Your task to perform on an android device: Open calendar and show me the second week of next month Image 0: 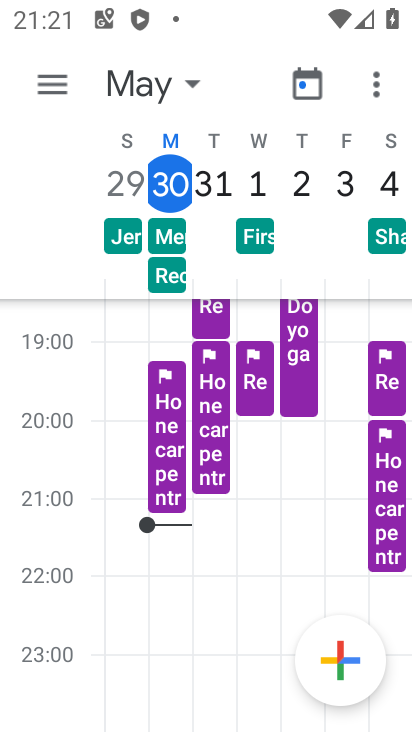
Step 0: press home button
Your task to perform on an android device: Open calendar and show me the second week of next month Image 1: 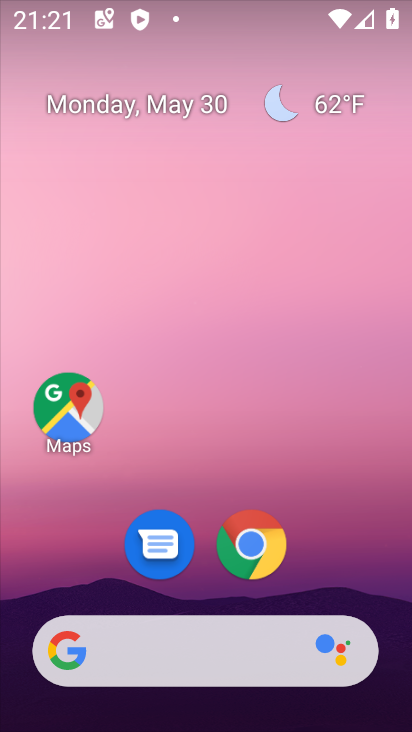
Step 1: drag from (320, 536) to (263, 293)
Your task to perform on an android device: Open calendar and show me the second week of next month Image 2: 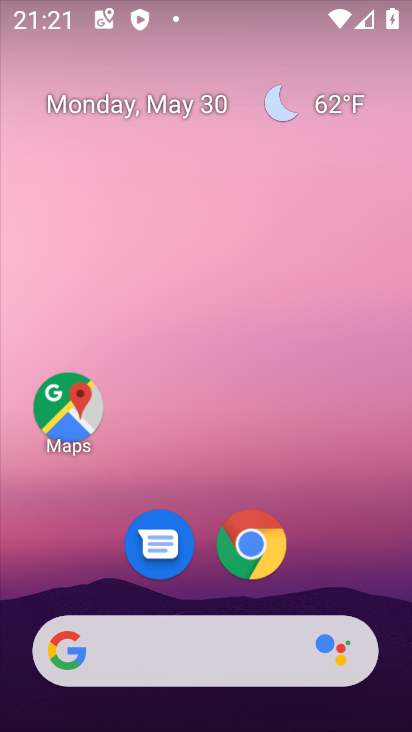
Step 2: drag from (328, 563) to (253, 155)
Your task to perform on an android device: Open calendar and show me the second week of next month Image 3: 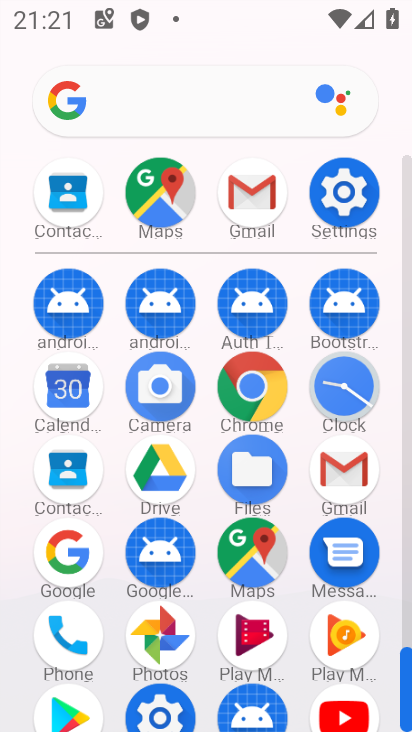
Step 3: click (74, 387)
Your task to perform on an android device: Open calendar and show me the second week of next month Image 4: 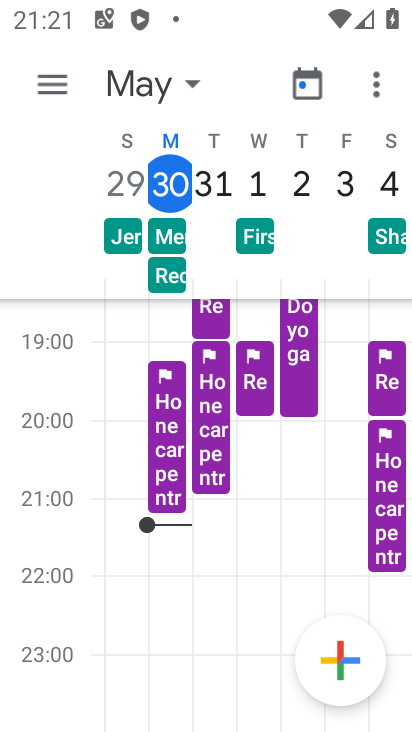
Step 4: click (311, 89)
Your task to perform on an android device: Open calendar and show me the second week of next month Image 5: 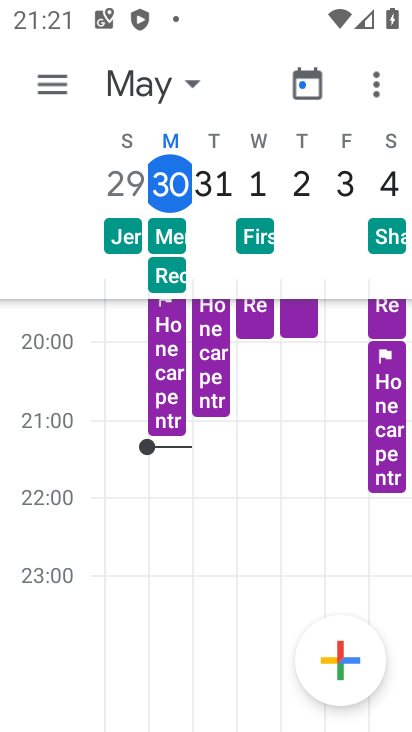
Step 5: click (195, 84)
Your task to perform on an android device: Open calendar and show me the second week of next month Image 6: 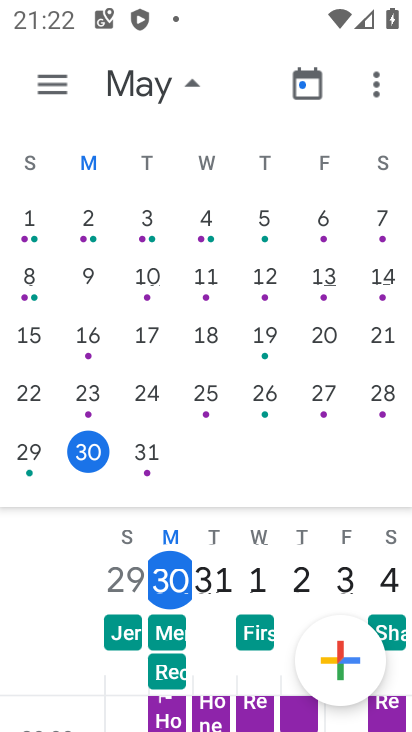
Step 6: drag from (366, 359) to (64, 387)
Your task to perform on an android device: Open calendar and show me the second week of next month Image 7: 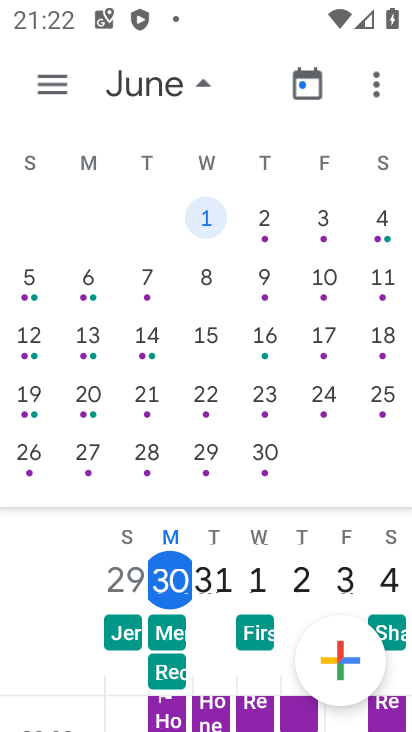
Step 7: click (83, 332)
Your task to perform on an android device: Open calendar and show me the second week of next month Image 8: 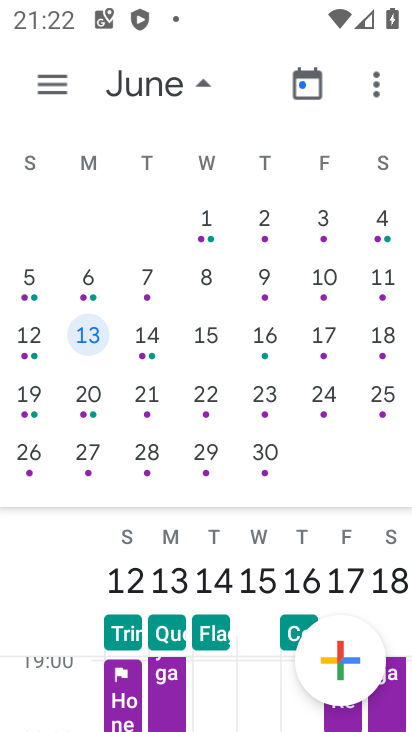
Step 8: click (52, 85)
Your task to perform on an android device: Open calendar and show me the second week of next month Image 9: 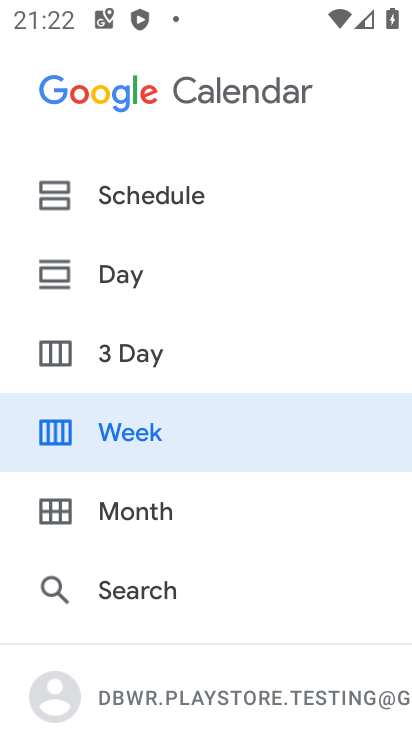
Step 9: click (89, 445)
Your task to perform on an android device: Open calendar and show me the second week of next month Image 10: 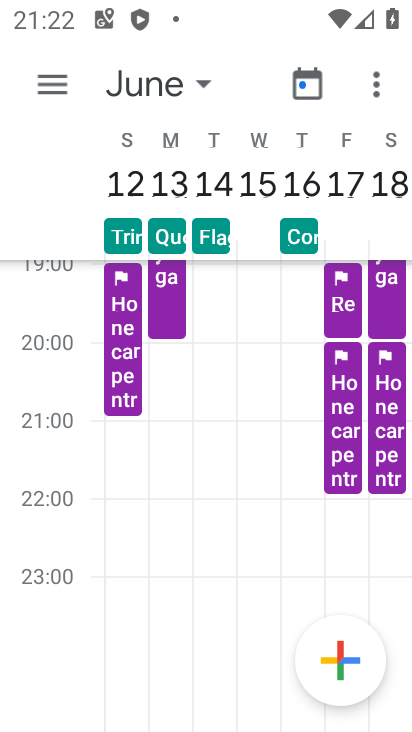
Step 10: task complete